Your task to perform on an android device: open the mobile data screen to see how much data has been used Image 0: 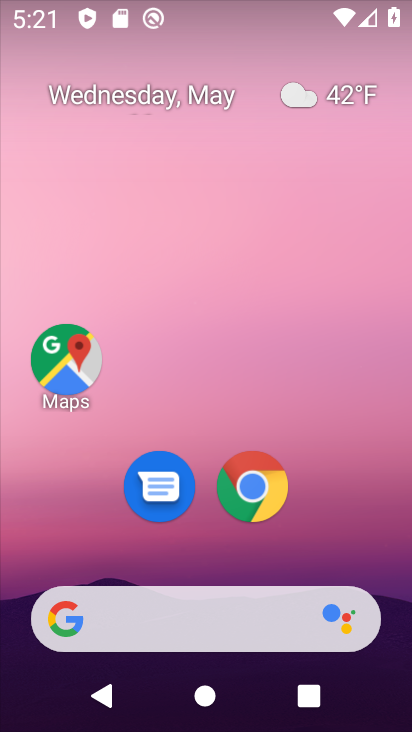
Step 0: drag from (211, 558) to (228, 43)
Your task to perform on an android device: open the mobile data screen to see how much data has been used Image 1: 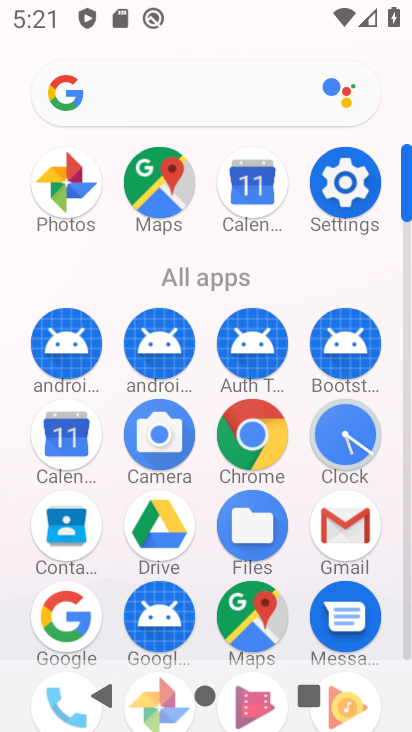
Step 1: click (337, 193)
Your task to perform on an android device: open the mobile data screen to see how much data has been used Image 2: 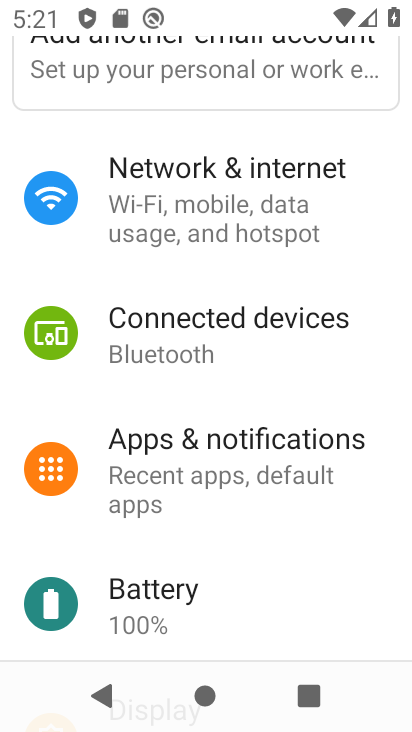
Step 2: drag from (233, 504) to (261, 320)
Your task to perform on an android device: open the mobile data screen to see how much data has been used Image 3: 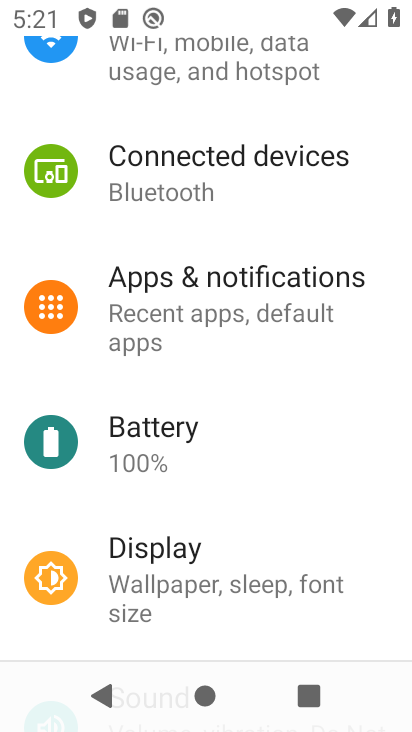
Step 3: drag from (201, 535) to (244, 256)
Your task to perform on an android device: open the mobile data screen to see how much data has been used Image 4: 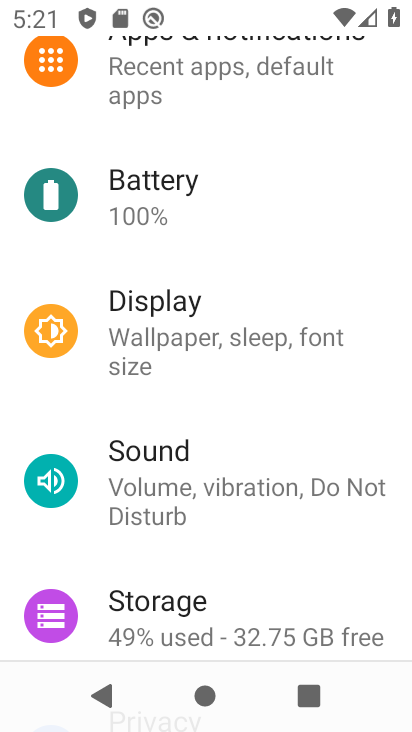
Step 4: drag from (225, 536) to (251, 366)
Your task to perform on an android device: open the mobile data screen to see how much data has been used Image 5: 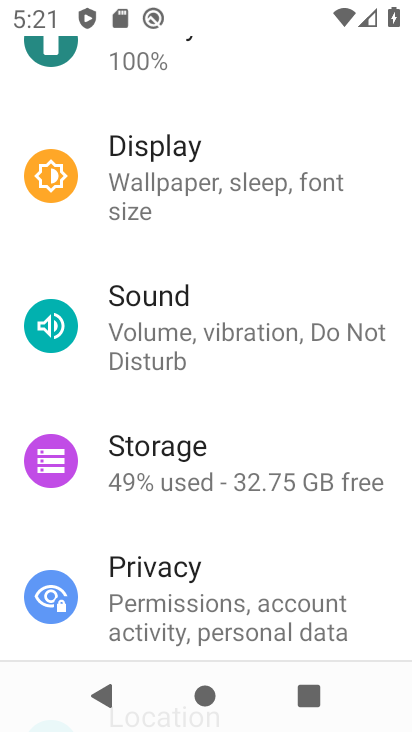
Step 5: drag from (203, 299) to (189, 668)
Your task to perform on an android device: open the mobile data screen to see how much data has been used Image 6: 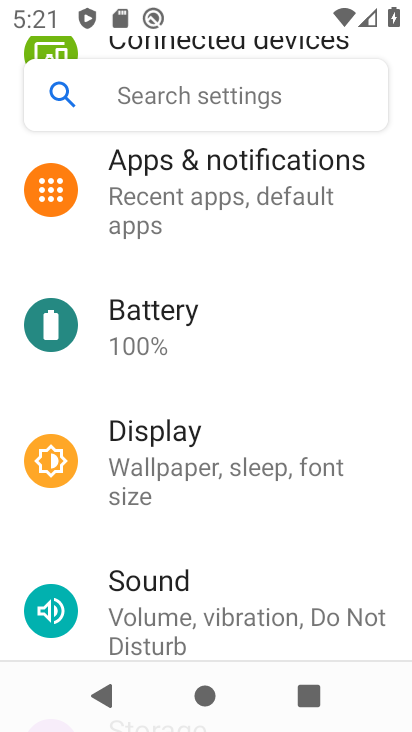
Step 6: drag from (250, 205) to (254, 575)
Your task to perform on an android device: open the mobile data screen to see how much data has been used Image 7: 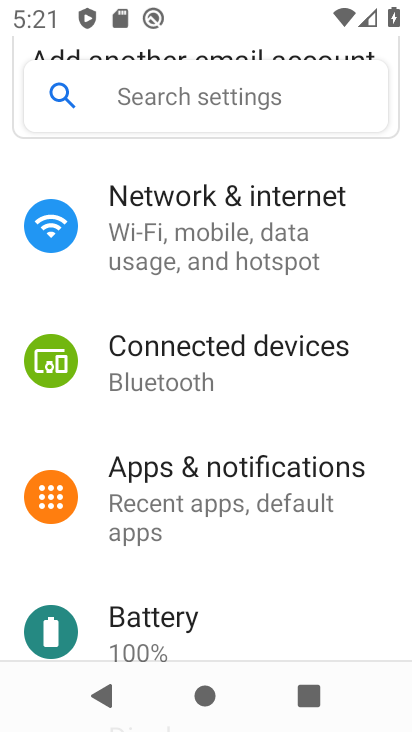
Step 7: click (248, 254)
Your task to perform on an android device: open the mobile data screen to see how much data has been used Image 8: 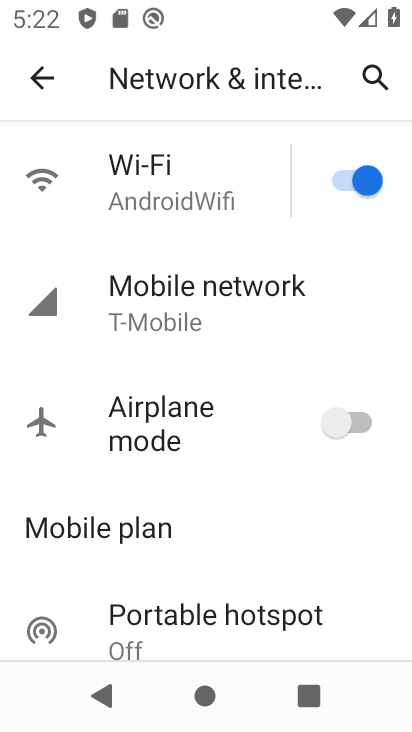
Step 8: click (144, 321)
Your task to perform on an android device: open the mobile data screen to see how much data has been used Image 9: 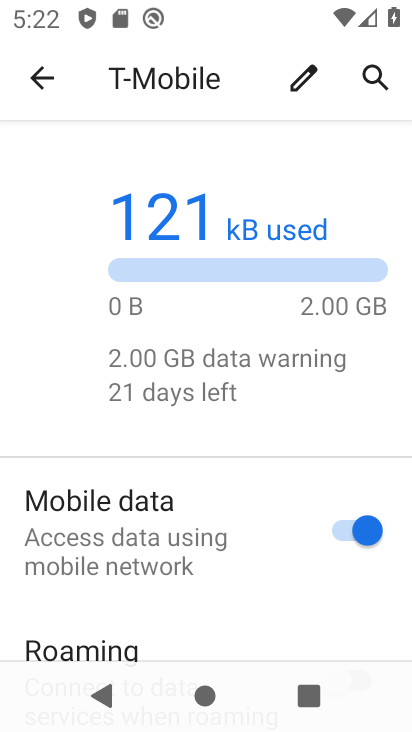
Step 9: drag from (209, 545) to (256, 289)
Your task to perform on an android device: open the mobile data screen to see how much data has been used Image 10: 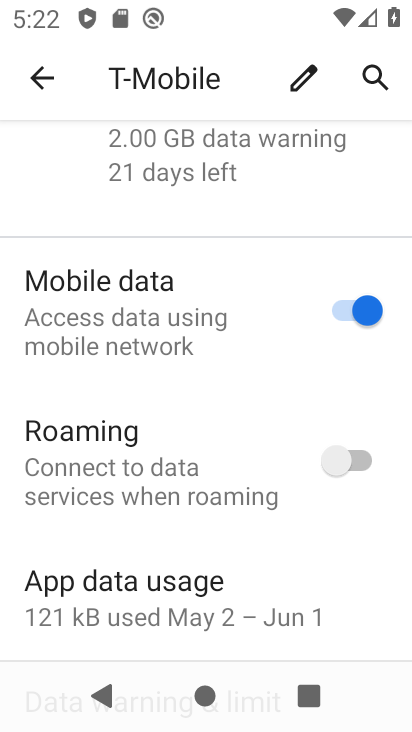
Step 10: drag from (218, 525) to (237, 328)
Your task to perform on an android device: open the mobile data screen to see how much data has been used Image 11: 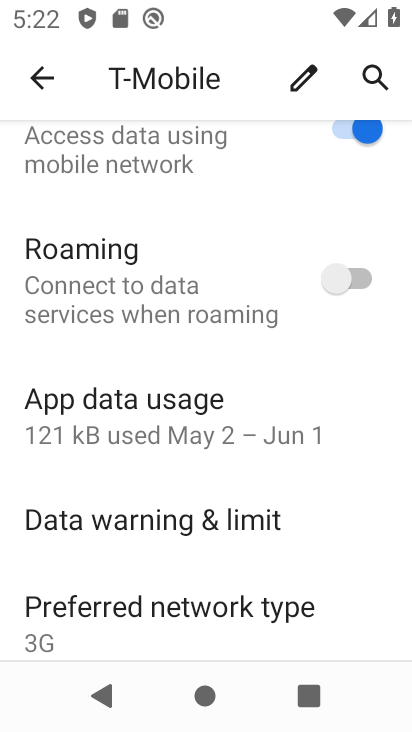
Step 11: drag from (220, 562) to (244, 444)
Your task to perform on an android device: open the mobile data screen to see how much data has been used Image 12: 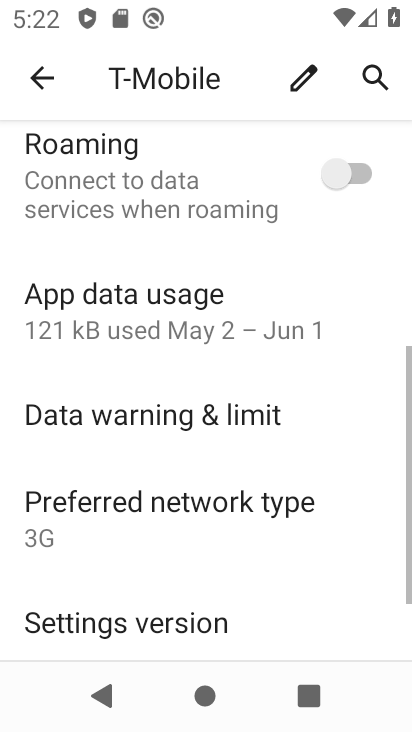
Step 12: click (160, 329)
Your task to perform on an android device: open the mobile data screen to see how much data has been used Image 13: 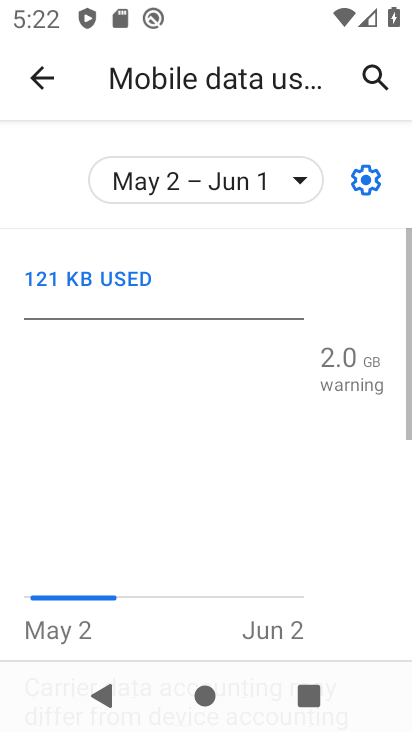
Step 13: task complete